Your task to perform on an android device: Play the last video I watched on Youtube Image 0: 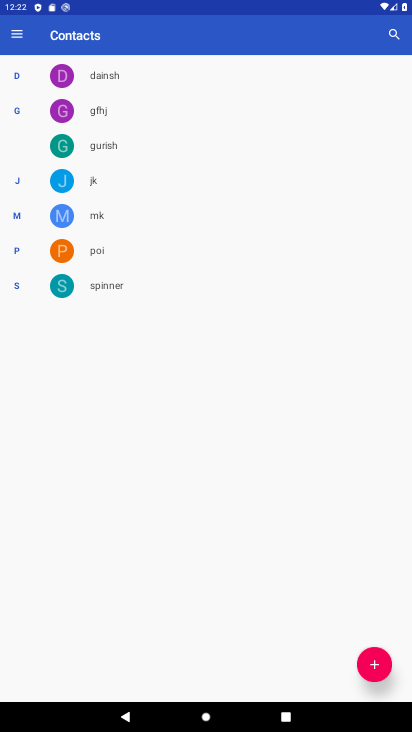
Step 0: press home button
Your task to perform on an android device: Play the last video I watched on Youtube Image 1: 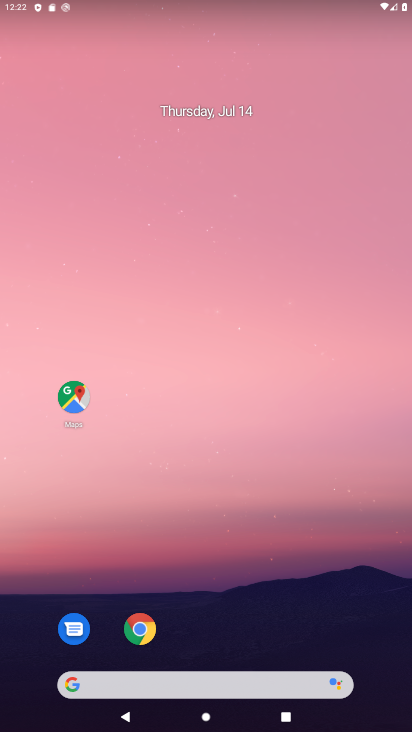
Step 1: drag from (183, 654) to (146, 231)
Your task to perform on an android device: Play the last video I watched on Youtube Image 2: 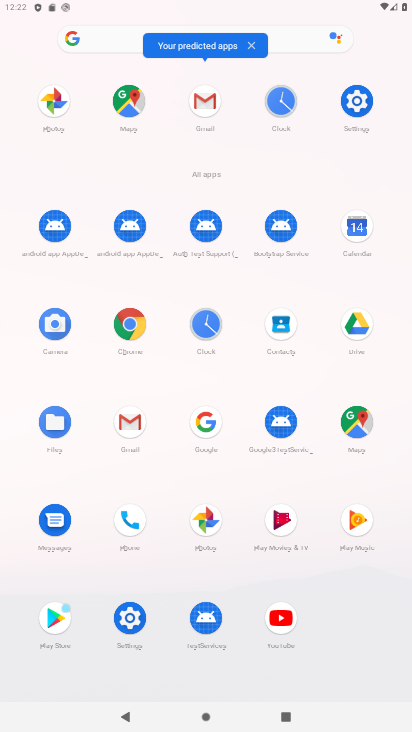
Step 2: click (278, 615)
Your task to perform on an android device: Play the last video I watched on Youtube Image 3: 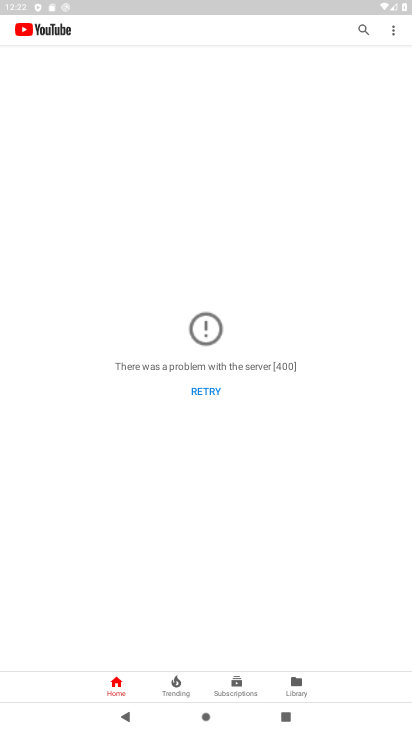
Step 3: click (301, 676)
Your task to perform on an android device: Play the last video I watched on Youtube Image 4: 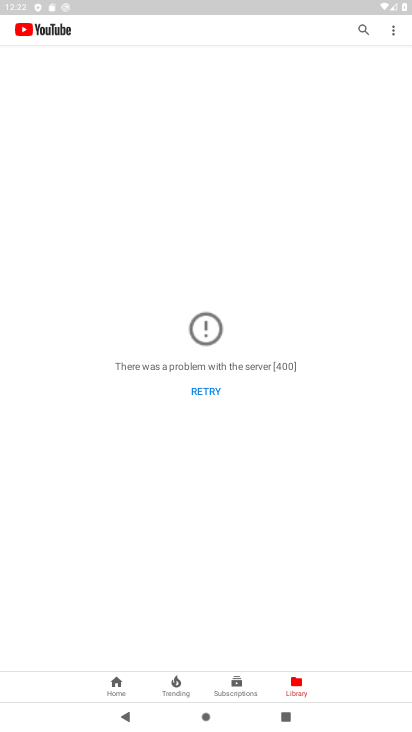
Step 4: click (301, 676)
Your task to perform on an android device: Play the last video I watched on Youtube Image 5: 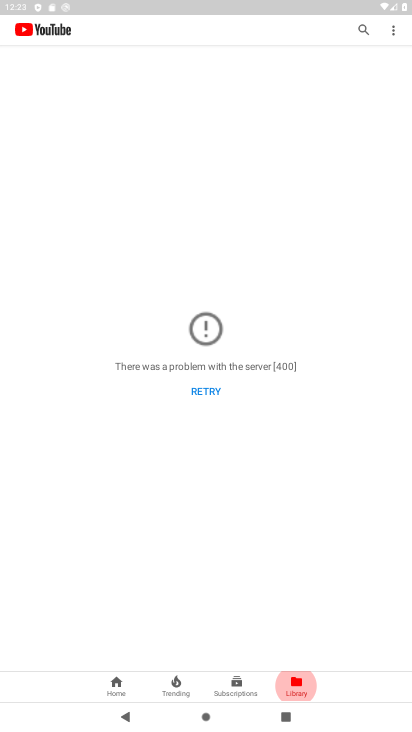
Step 5: click (301, 676)
Your task to perform on an android device: Play the last video I watched on Youtube Image 6: 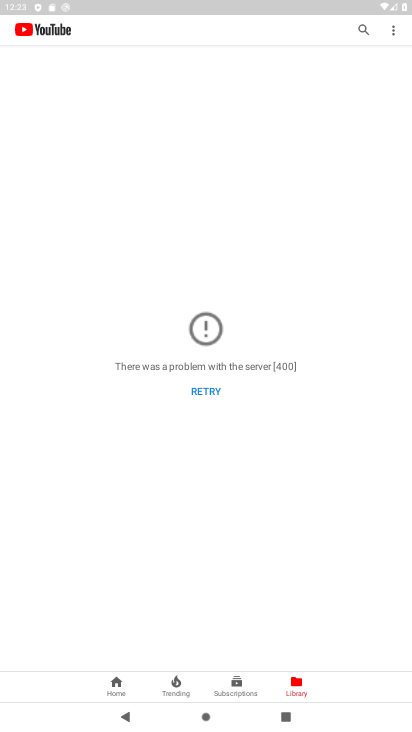
Step 6: task complete